Your task to perform on an android device: delete a single message in the gmail app Image 0: 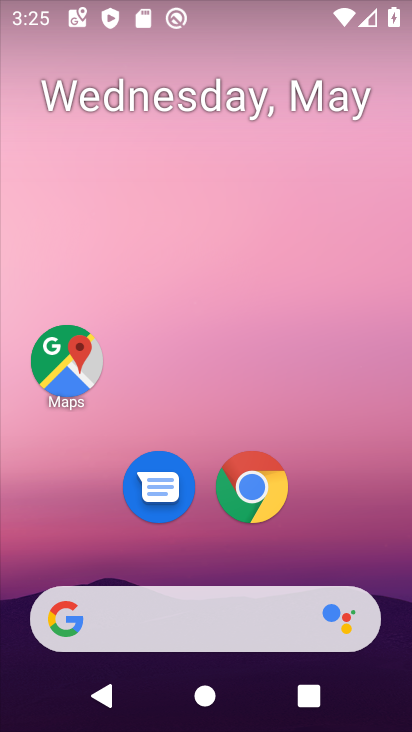
Step 0: drag from (330, 533) to (268, 74)
Your task to perform on an android device: delete a single message in the gmail app Image 1: 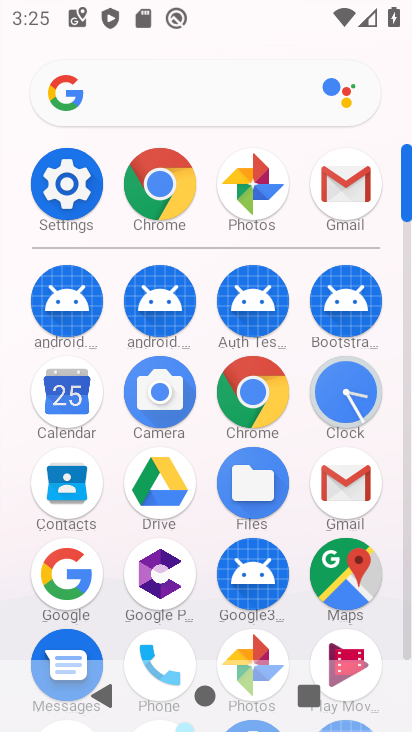
Step 1: drag from (13, 587) to (43, 266)
Your task to perform on an android device: delete a single message in the gmail app Image 2: 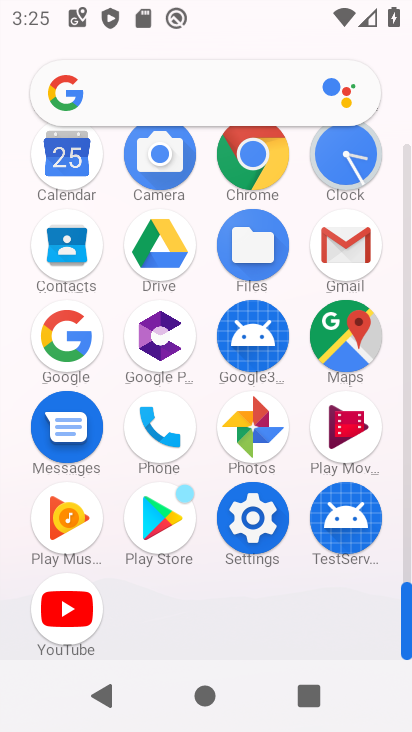
Step 2: click (344, 238)
Your task to perform on an android device: delete a single message in the gmail app Image 3: 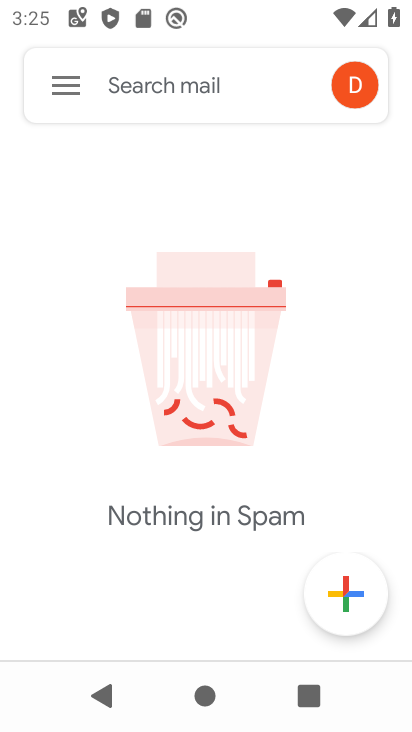
Step 3: click (67, 82)
Your task to perform on an android device: delete a single message in the gmail app Image 4: 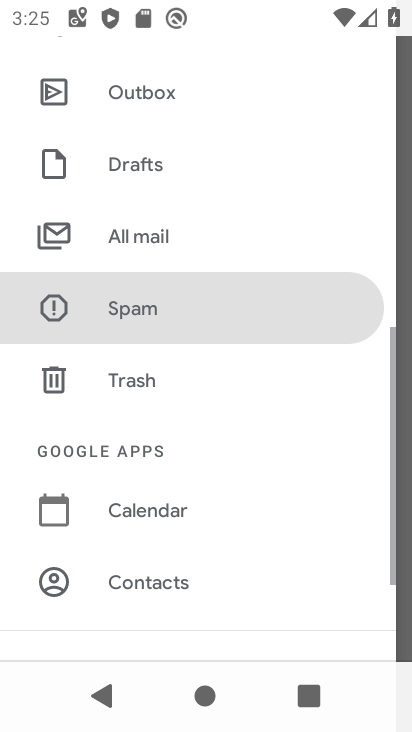
Step 4: click (134, 230)
Your task to perform on an android device: delete a single message in the gmail app Image 5: 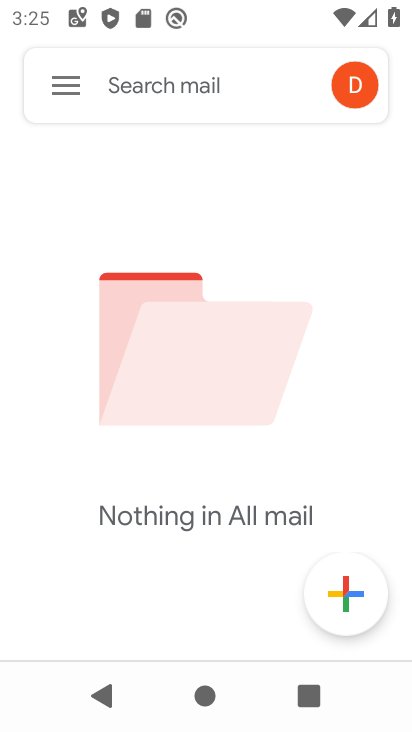
Step 5: click (64, 80)
Your task to perform on an android device: delete a single message in the gmail app Image 6: 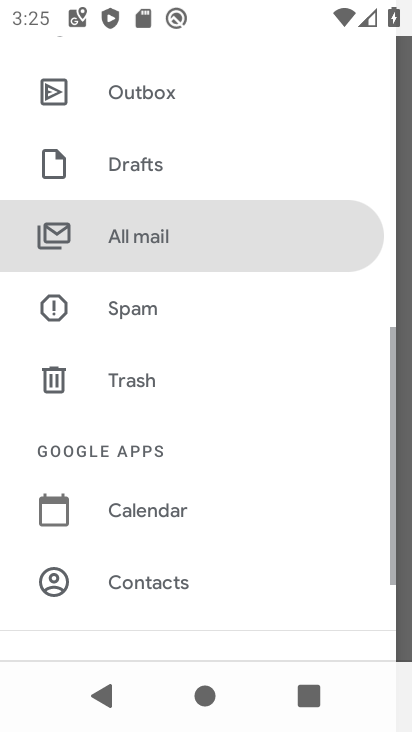
Step 6: drag from (242, 162) to (268, 552)
Your task to perform on an android device: delete a single message in the gmail app Image 7: 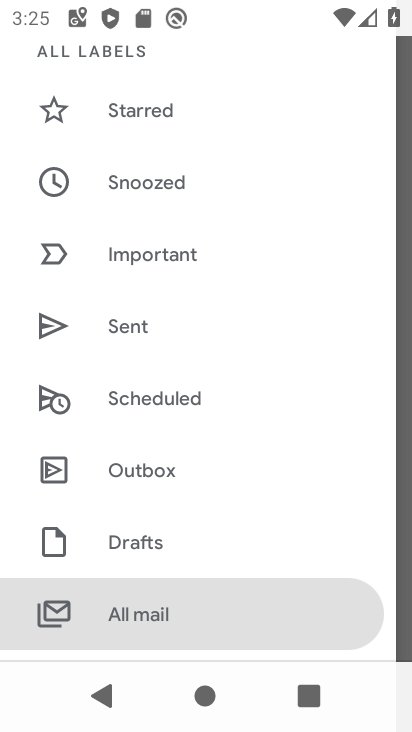
Step 7: click (178, 111)
Your task to perform on an android device: delete a single message in the gmail app Image 8: 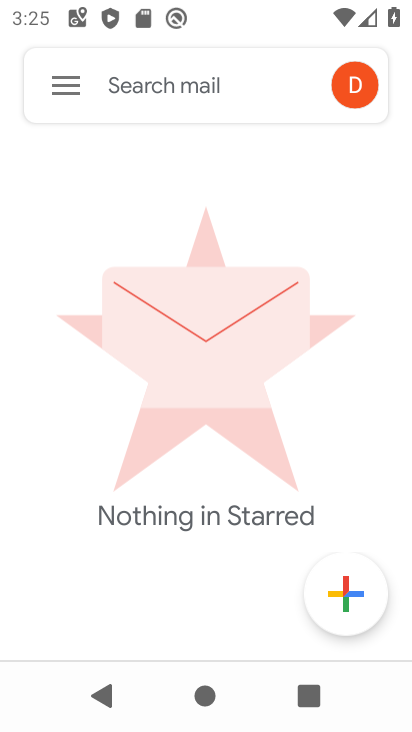
Step 8: click (64, 75)
Your task to perform on an android device: delete a single message in the gmail app Image 9: 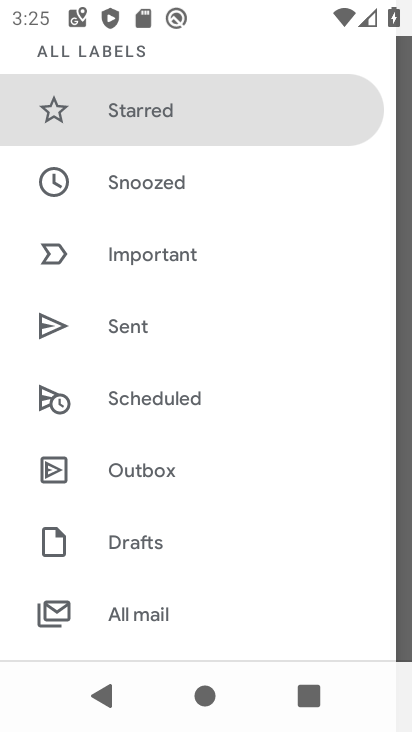
Step 9: drag from (167, 621) to (166, 222)
Your task to perform on an android device: delete a single message in the gmail app Image 10: 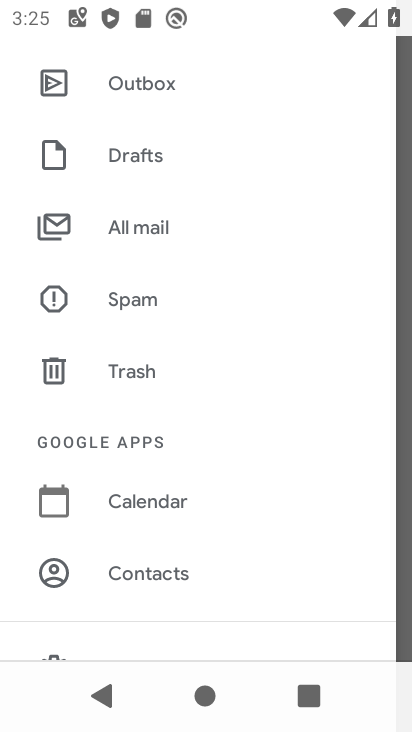
Step 10: click (156, 222)
Your task to perform on an android device: delete a single message in the gmail app Image 11: 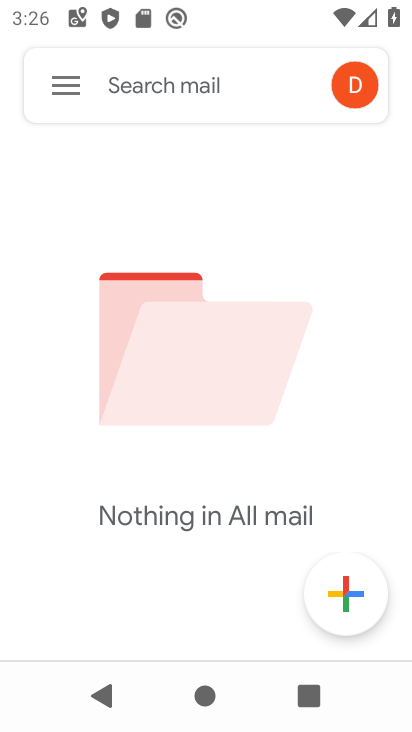
Step 11: click (57, 98)
Your task to perform on an android device: delete a single message in the gmail app Image 12: 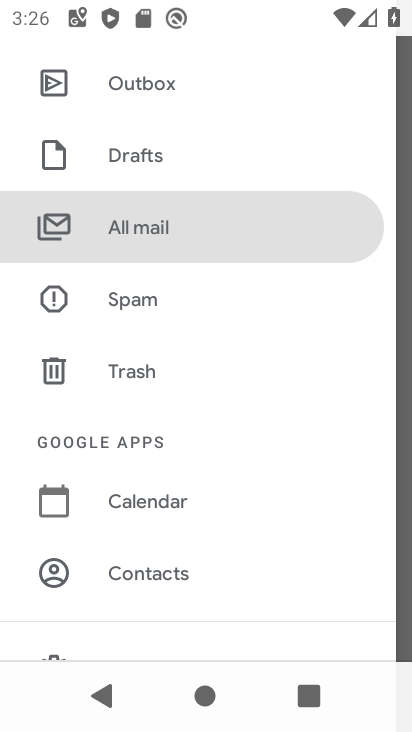
Step 12: click (180, 95)
Your task to perform on an android device: delete a single message in the gmail app Image 13: 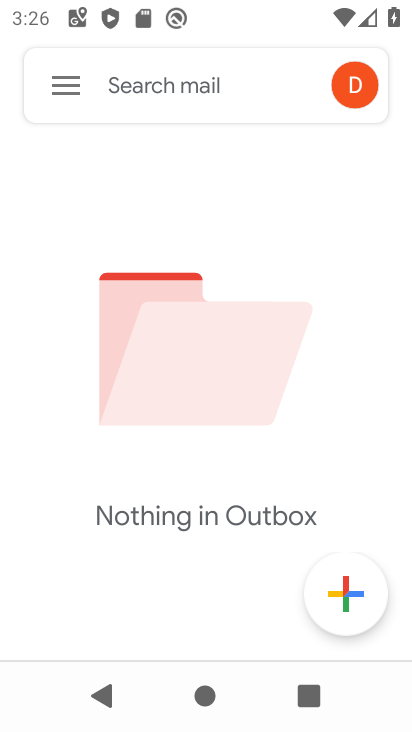
Step 13: click (59, 79)
Your task to perform on an android device: delete a single message in the gmail app Image 14: 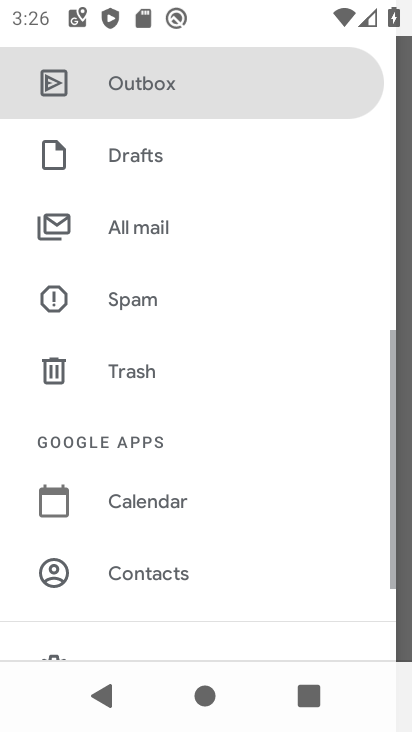
Step 14: drag from (245, 216) to (266, 629)
Your task to perform on an android device: delete a single message in the gmail app Image 15: 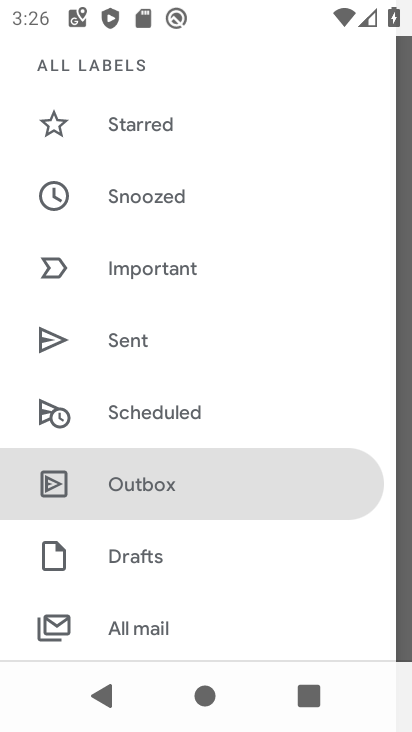
Step 15: click (170, 183)
Your task to perform on an android device: delete a single message in the gmail app Image 16: 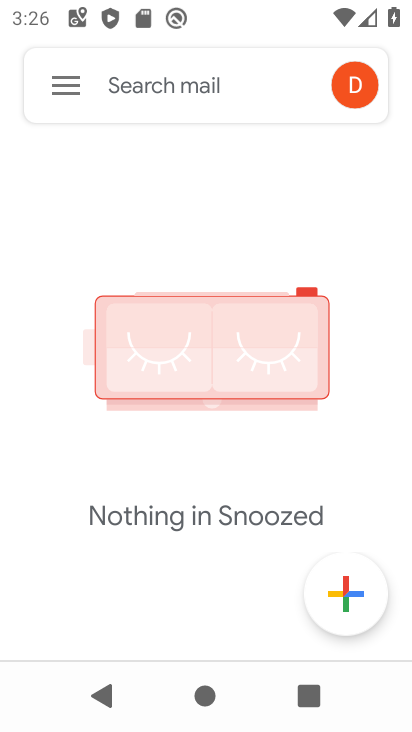
Step 16: click (52, 82)
Your task to perform on an android device: delete a single message in the gmail app Image 17: 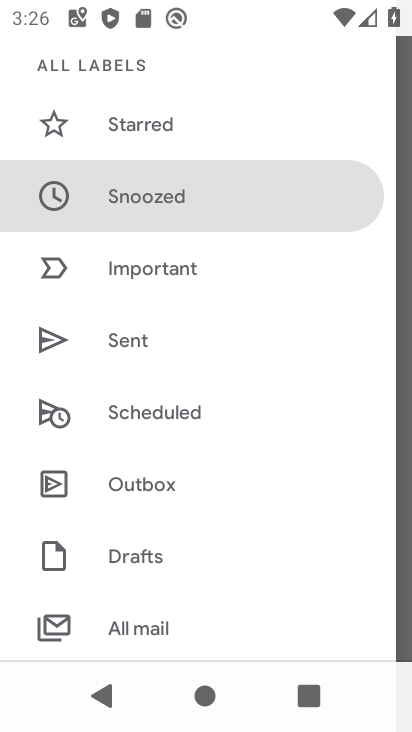
Step 17: click (167, 268)
Your task to perform on an android device: delete a single message in the gmail app Image 18: 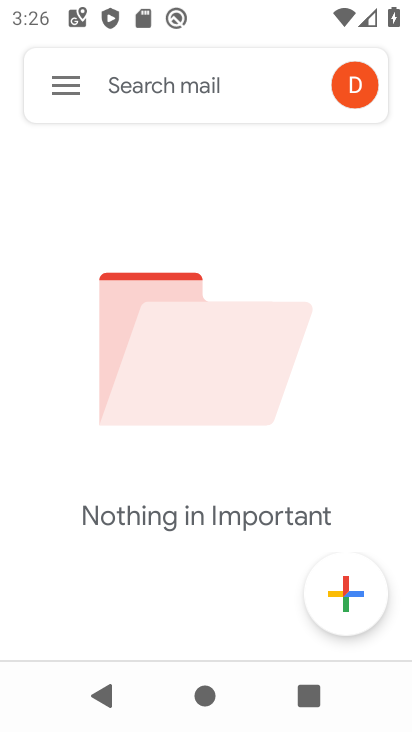
Step 18: task complete